Your task to perform on an android device: add a contact in the contacts app Image 0: 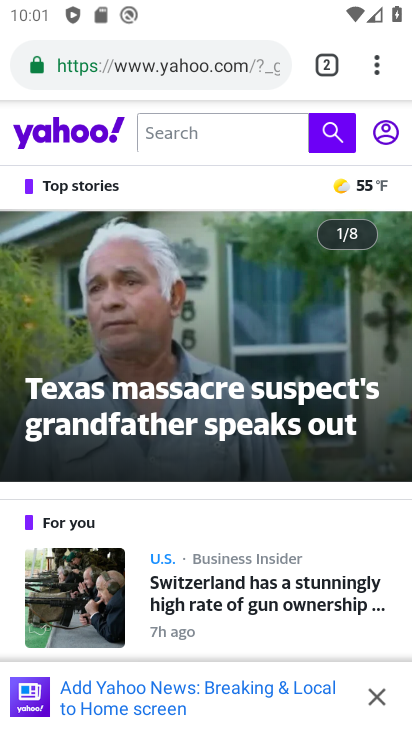
Step 0: press home button
Your task to perform on an android device: add a contact in the contacts app Image 1: 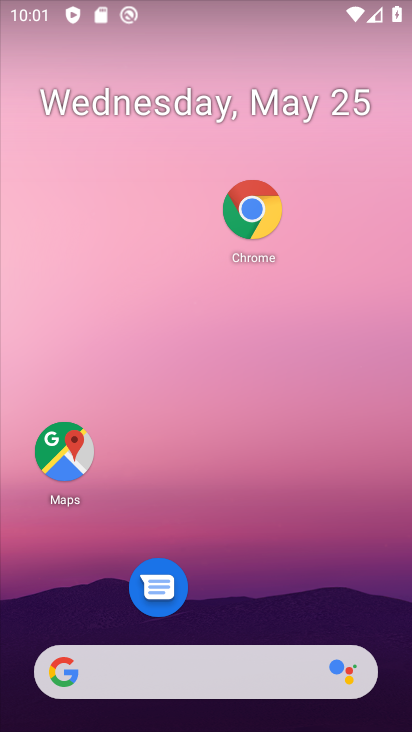
Step 1: drag from (231, 609) to (275, 0)
Your task to perform on an android device: add a contact in the contacts app Image 2: 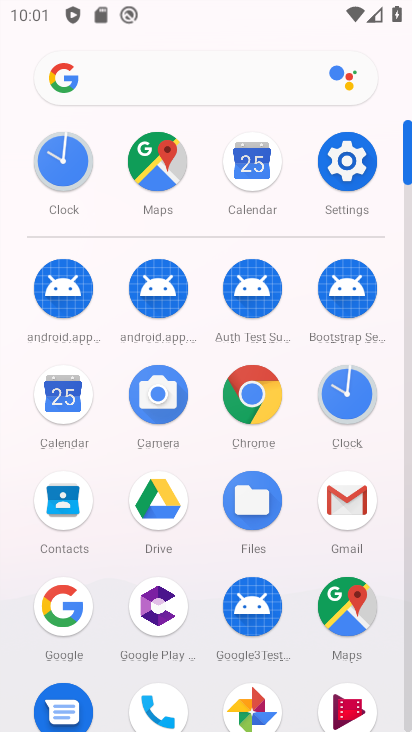
Step 2: click (74, 518)
Your task to perform on an android device: add a contact in the contacts app Image 3: 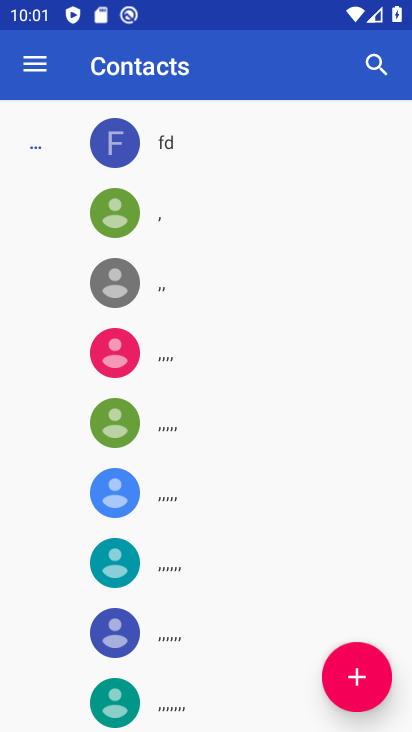
Step 3: click (345, 678)
Your task to perform on an android device: add a contact in the contacts app Image 4: 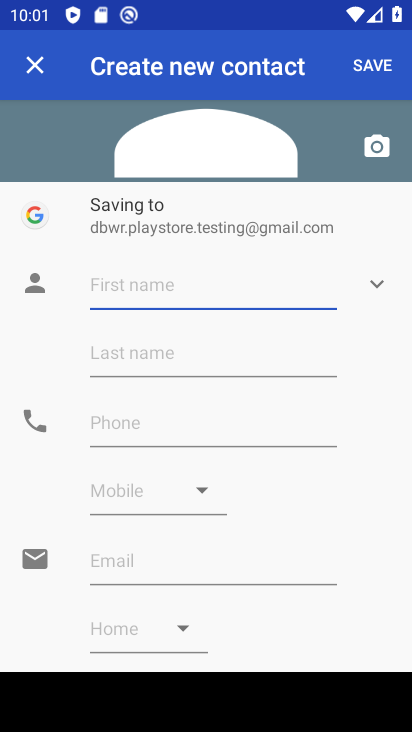
Step 4: type "tantra"
Your task to perform on an android device: add a contact in the contacts app Image 5: 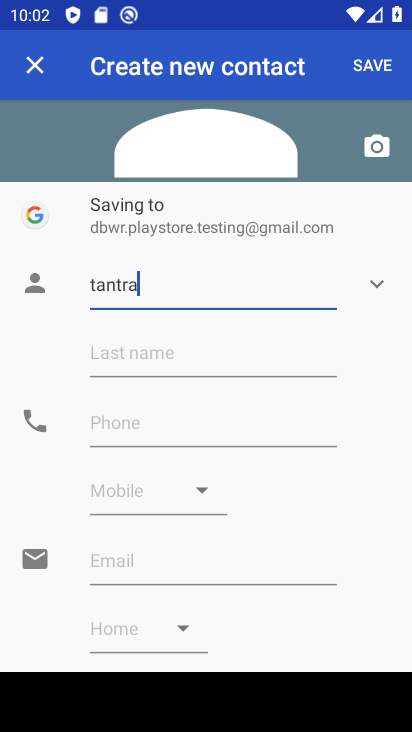
Step 5: click (369, 58)
Your task to perform on an android device: add a contact in the contacts app Image 6: 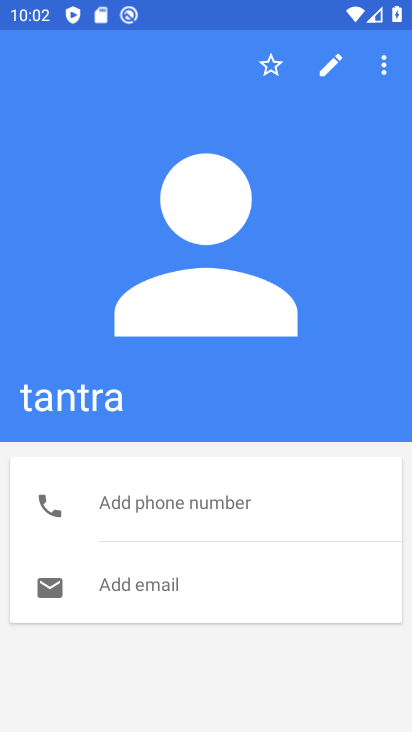
Step 6: task complete